Your task to perform on an android device: turn off javascript in the chrome app Image 0: 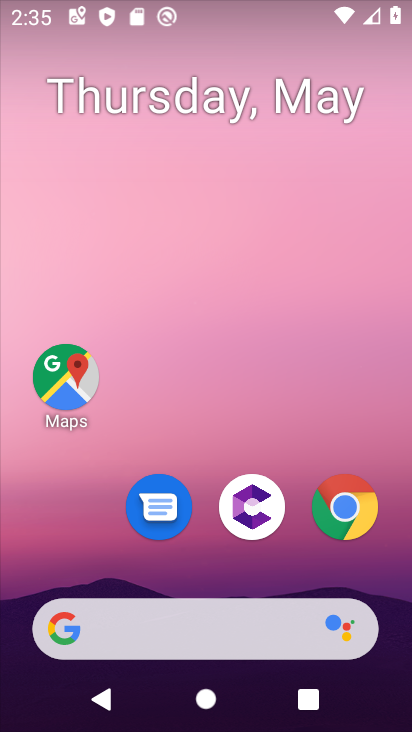
Step 0: press home button
Your task to perform on an android device: turn off javascript in the chrome app Image 1: 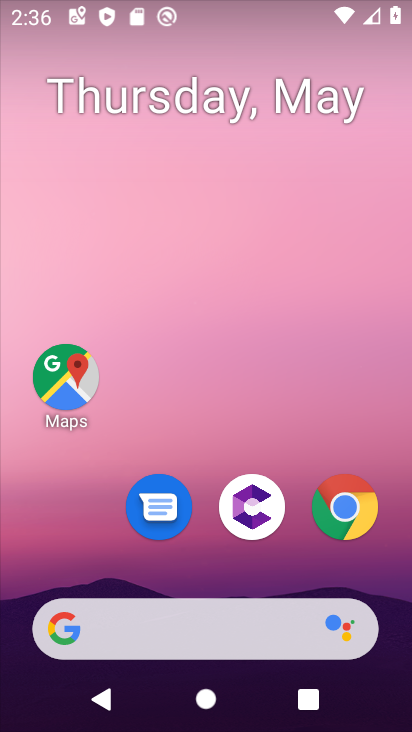
Step 1: click (353, 496)
Your task to perform on an android device: turn off javascript in the chrome app Image 2: 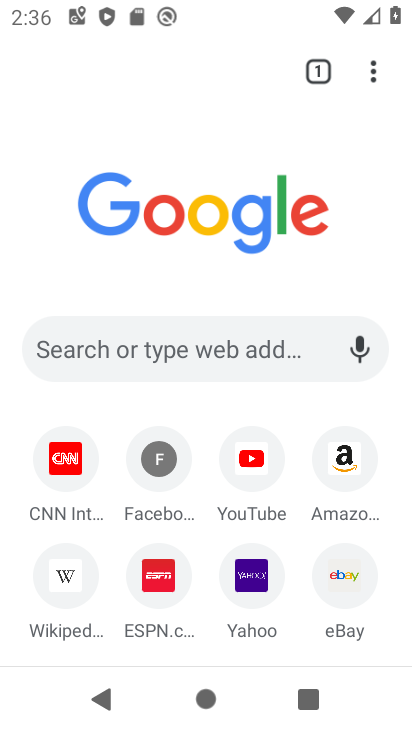
Step 2: drag from (376, 66) to (300, 509)
Your task to perform on an android device: turn off javascript in the chrome app Image 3: 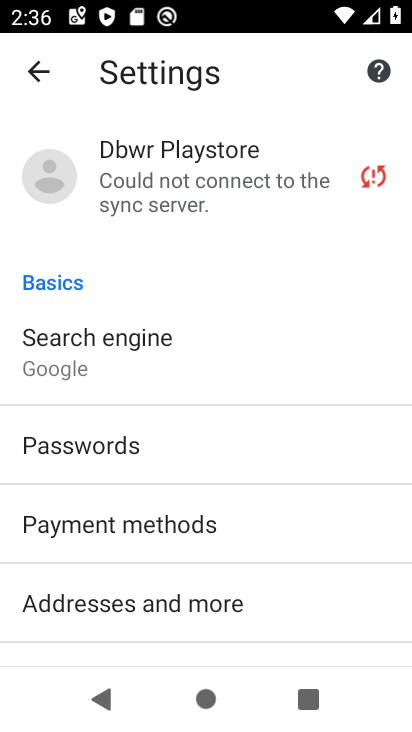
Step 3: drag from (270, 572) to (267, 2)
Your task to perform on an android device: turn off javascript in the chrome app Image 4: 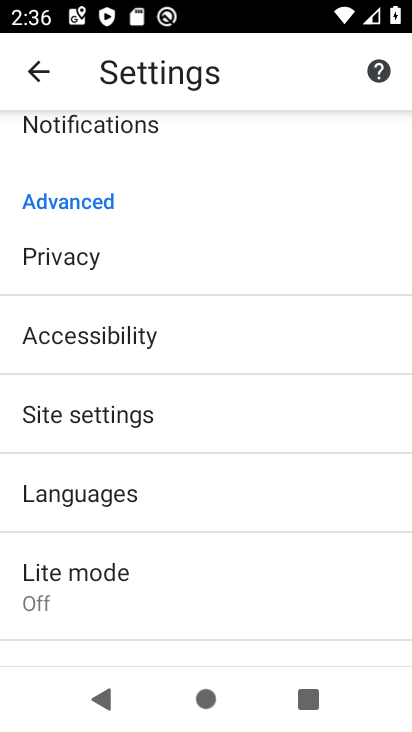
Step 4: click (118, 415)
Your task to perform on an android device: turn off javascript in the chrome app Image 5: 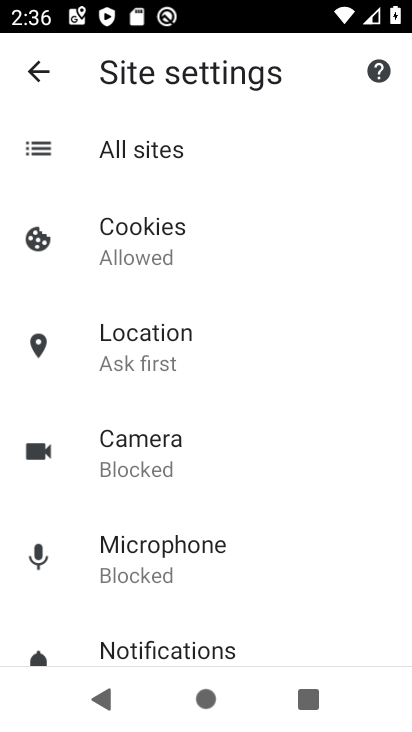
Step 5: drag from (273, 599) to (273, 127)
Your task to perform on an android device: turn off javascript in the chrome app Image 6: 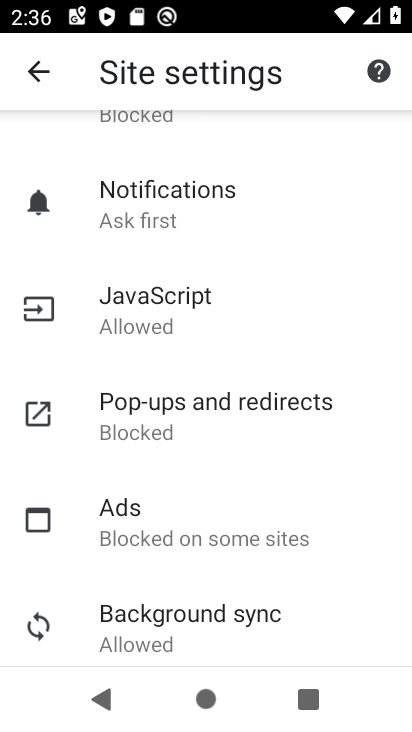
Step 6: click (160, 307)
Your task to perform on an android device: turn off javascript in the chrome app Image 7: 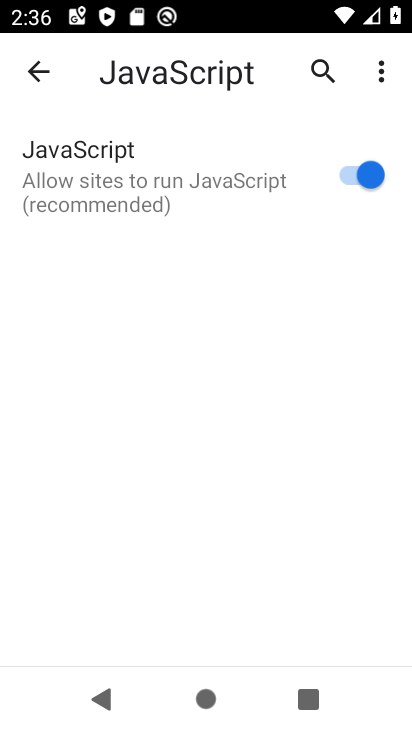
Step 7: click (354, 178)
Your task to perform on an android device: turn off javascript in the chrome app Image 8: 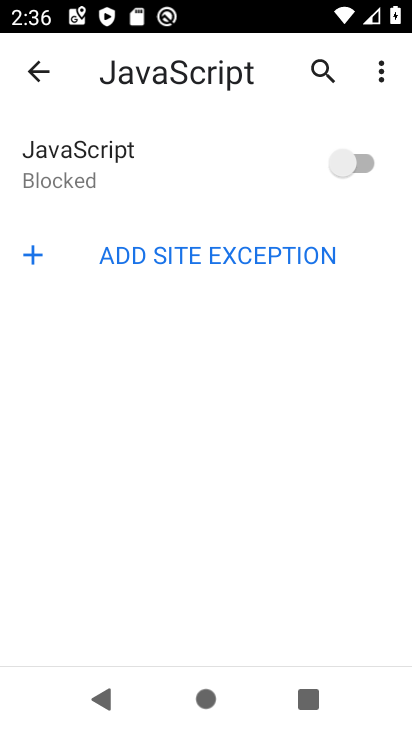
Step 8: task complete